Your task to perform on an android device: Open Chrome and go to settings Image 0: 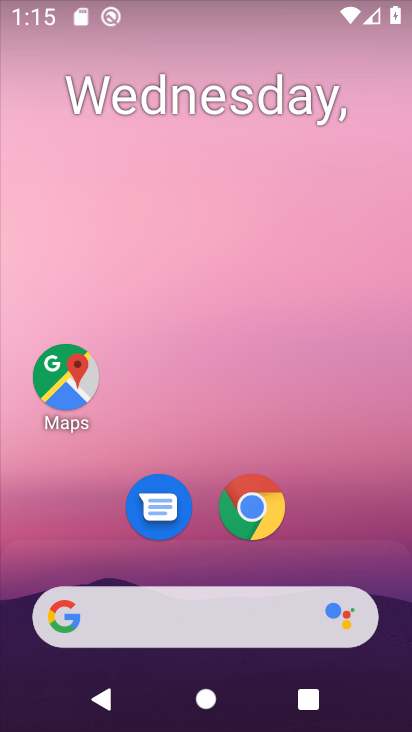
Step 0: click (284, 524)
Your task to perform on an android device: Open Chrome and go to settings Image 1: 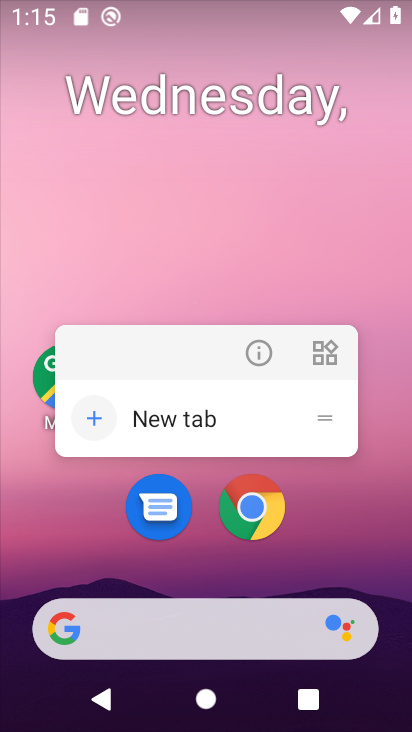
Step 1: click (248, 526)
Your task to perform on an android device: Open Chrome and go to settings Image 2: 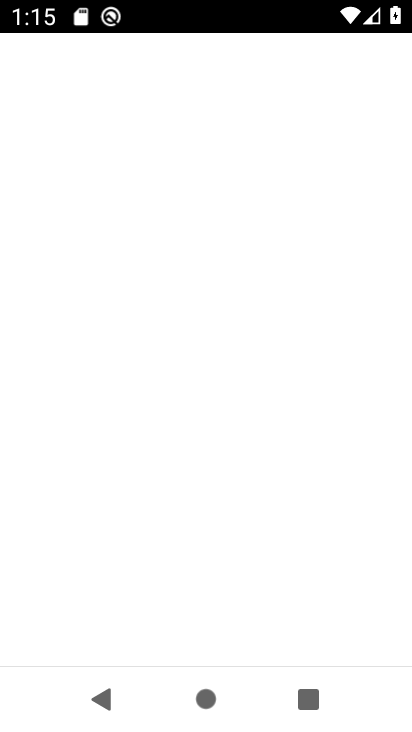
Step 2: click (252, 514)
Your task to perform on an android device: Open Chrome and go to settings Image 3: 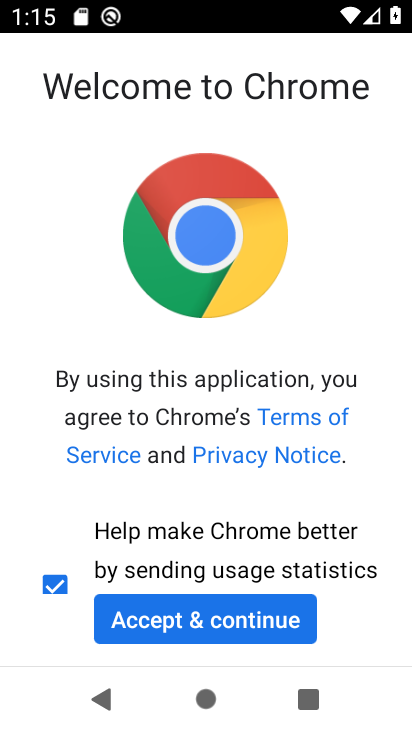
Step 3: click (255, 644)
Your task to perform on an android device: Open Chrome and go to settings Image 4: 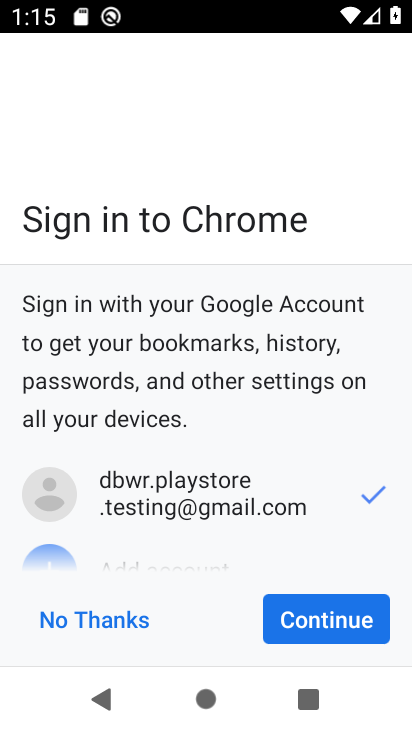
Step 4: click (311, 619)
Your task to perform on an android device: Open Chrome and go to settings Image 5: 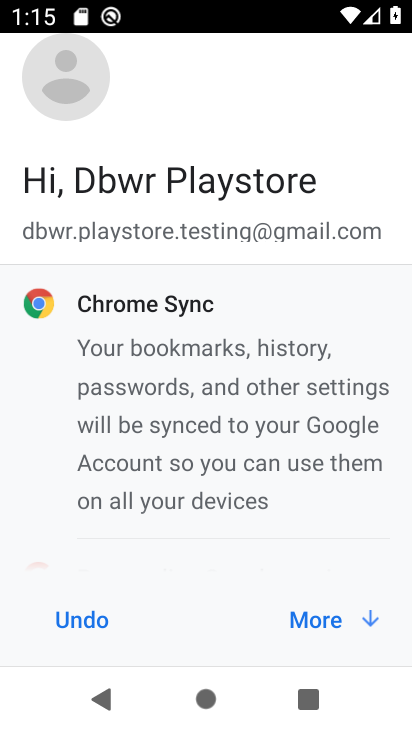
Step 5: click (311, 619)
Your task to perform on an android device: Open Chrome and go to settings Image 6: 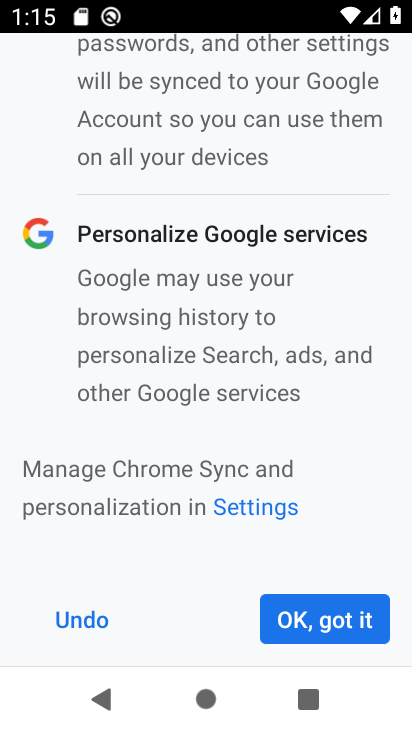
Step 6: click (358, 622)
Your task to perform on an android device: Open Chrome and go to settings Image 7: 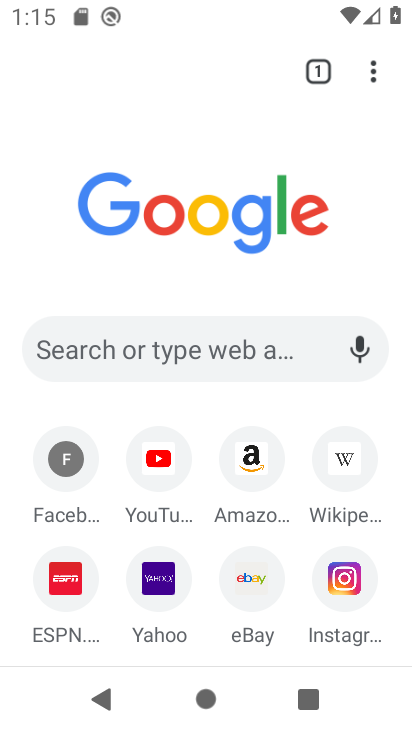
Step 7: task complete